Your task to perform on an android device: change timer sound Image 0: 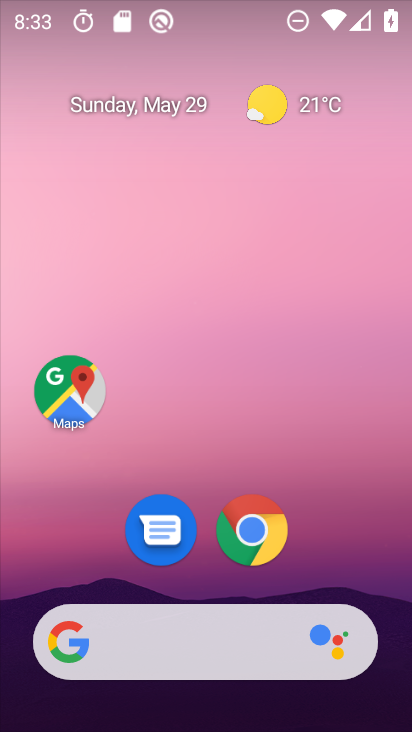
Step 0: drag from (253, 662) to (271, 172)
Your task to perform on an android device: change timer sound Image 1: 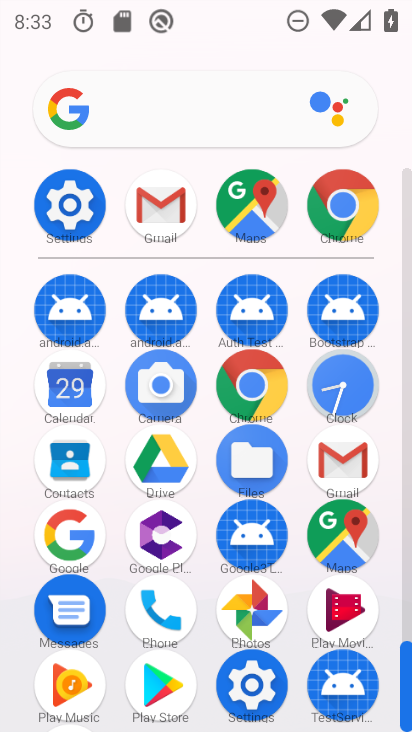
Step 1: click (60, 206)
Your task to perform on an android device: change timer sound Image 2: 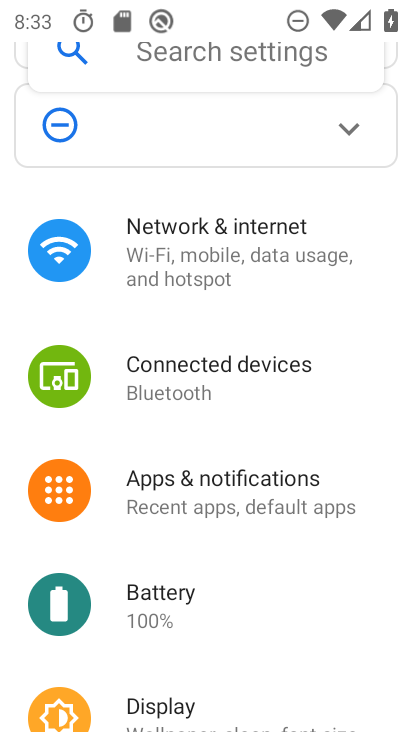
Step 2: press home button
Your task to perform on an android device: change timer sound Image 3: 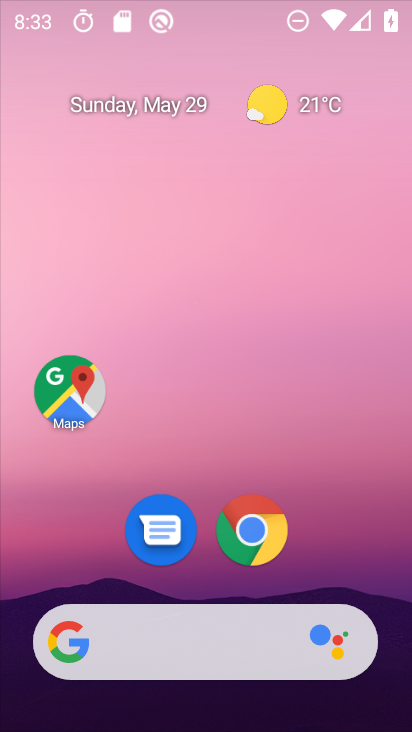
Step 3: drag from (276, 607) to (223, 121)
Your task to perform on an android device: change timer sound Image 4: 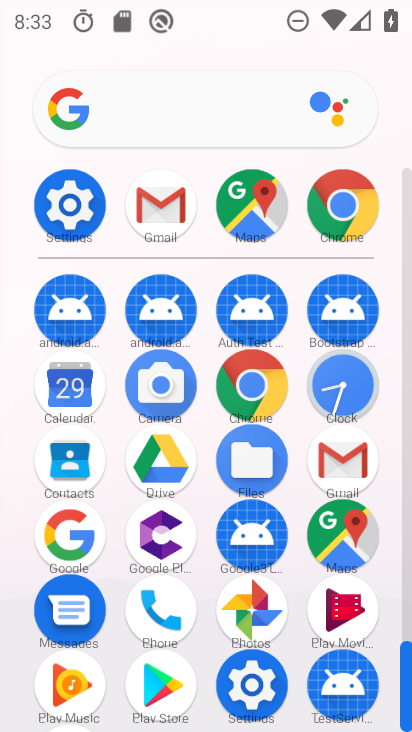
Step 4: click (331, 368)
Your task to perform on an android device: change timer sound Image 5: 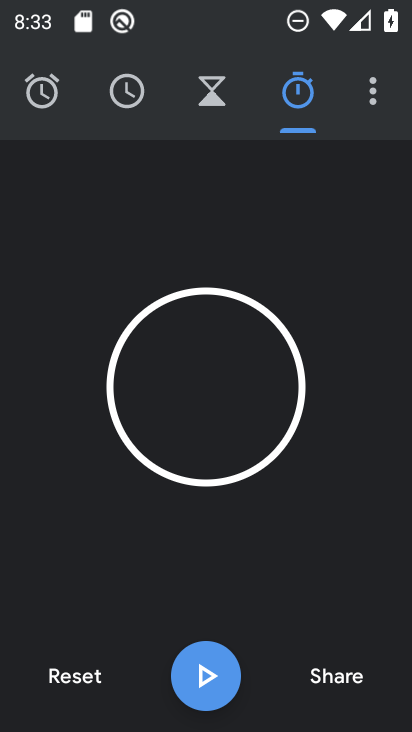
Step 5: click (383, 96)
Your task to perform on an android device: change timer sound Image 6: 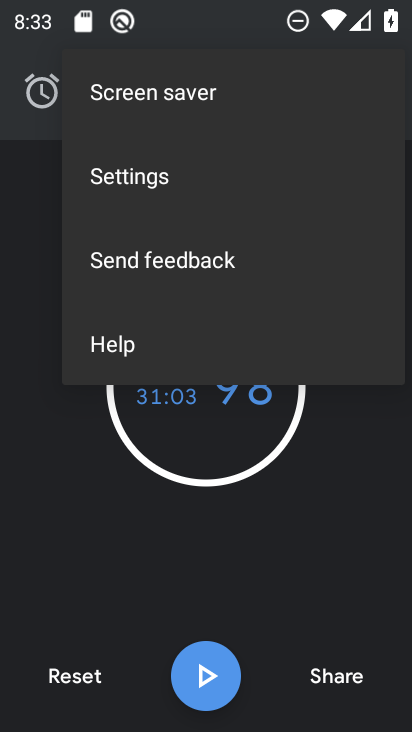
Step 6: click (155, 182)
Your task to perform on an android device: change timer sound Image 7: 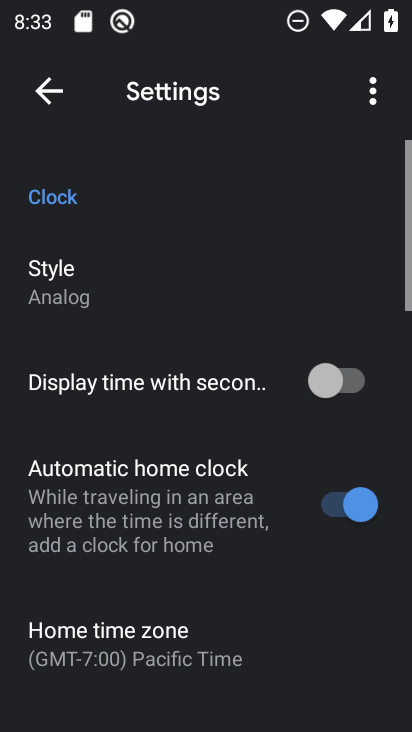
Step 7: drag from (190, 543) to (182, 176)
Your task to perform on an android device: change timer sound Image 8: 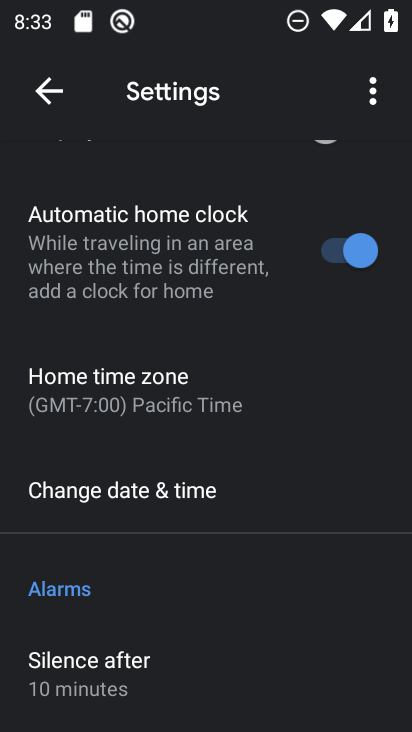
Step 8: drag from (200, 549) to (247, 133)
Your task to perform on an android device: change timer sound Image 9: 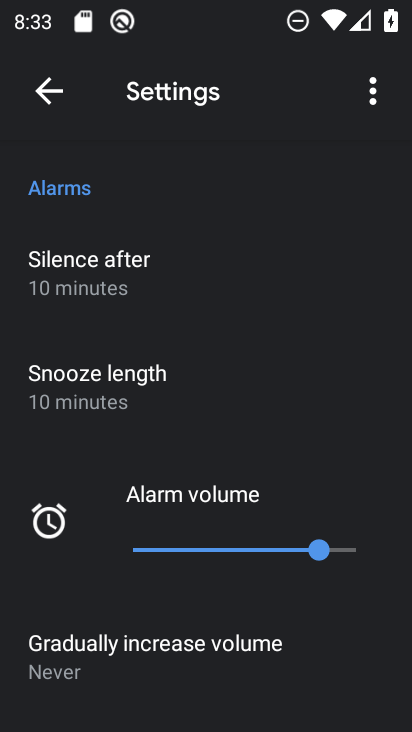
Step 9: drag from (185, 565) to (184, 283)
Your task to perform on an android device: change timer sound Image 10: 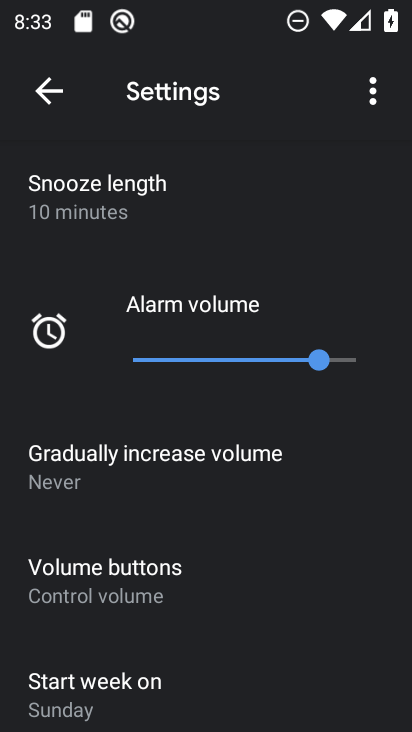
Step 10: drag from (149, 645) to (160, 262)
Your task to perform on an android device: change timer sound Image 11: 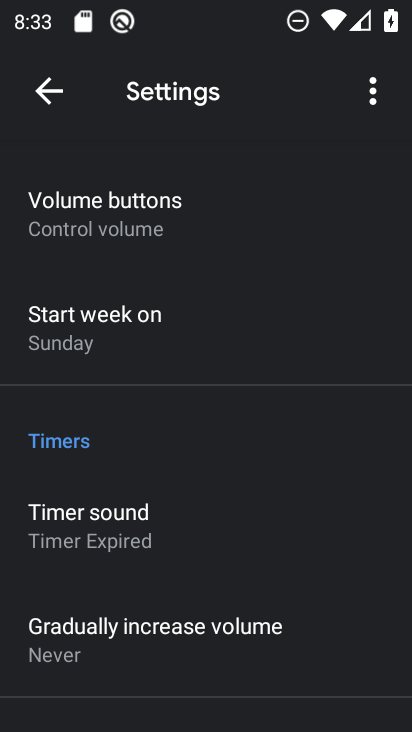
Step 11: click (151, 524)
Your task to perform on an android device: change timer sound Image 12: 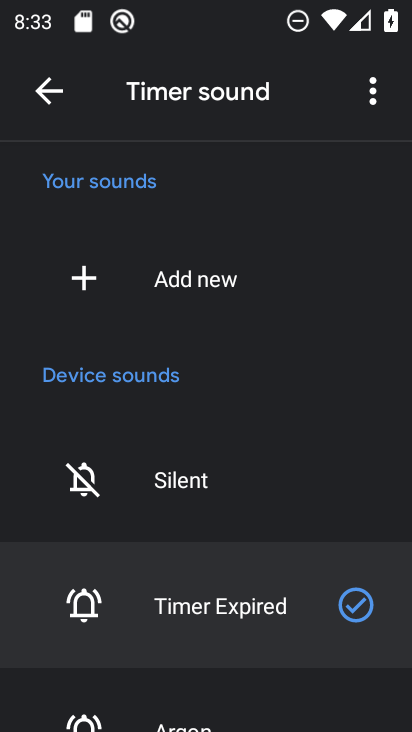
Step 12: click (162, 715)
Your task to perform on an android device: change timer sound Image 13: 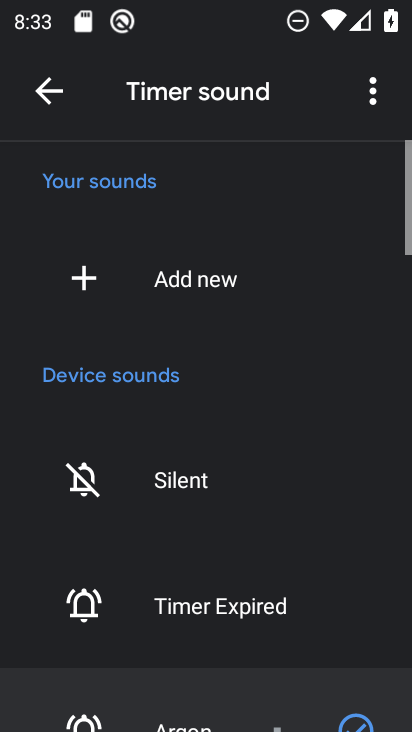
Step 13: task complete